Your task to perform on an android device: Open Youtube and go to "Your channel" Image 0: 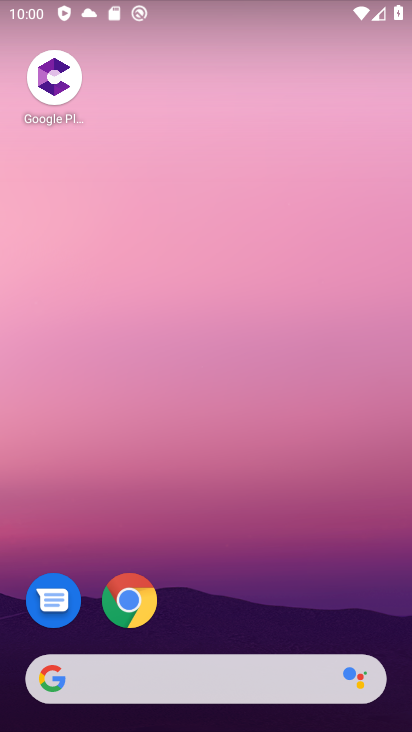
Step 0: drag from (203, 441) to (193, 0)
Your task to perform on an android device: Open Youtube and go to "Your channel" Image 1: 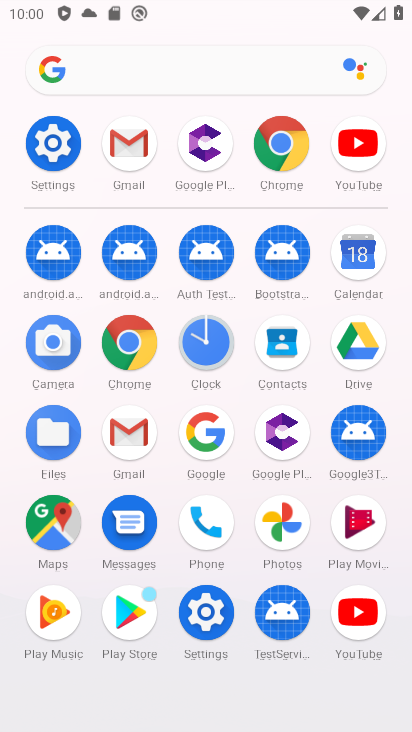
Step 1: click (345, 141)
Your task to perform on an android device: Open Youtube and go to "Your channel" Image 2: 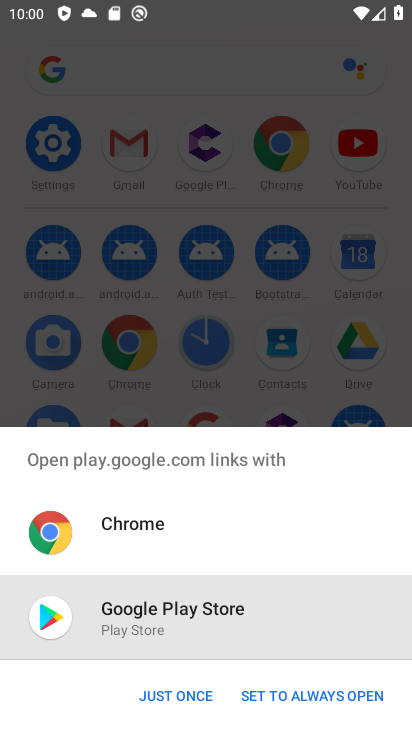
Step 2: click (168, 694)
Your task to perform on an android device: Open Youtube and go to "Your channel" Image 3: 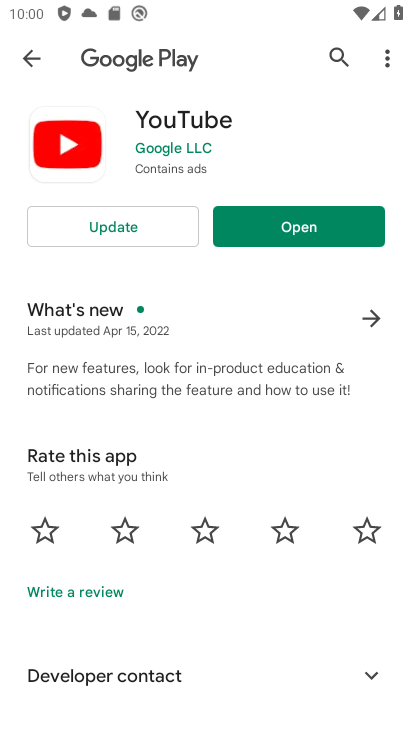
Step 3: click (295, 223)
Your task to perform on an android device: Open Youtube and go to "Your channel" Image 4: 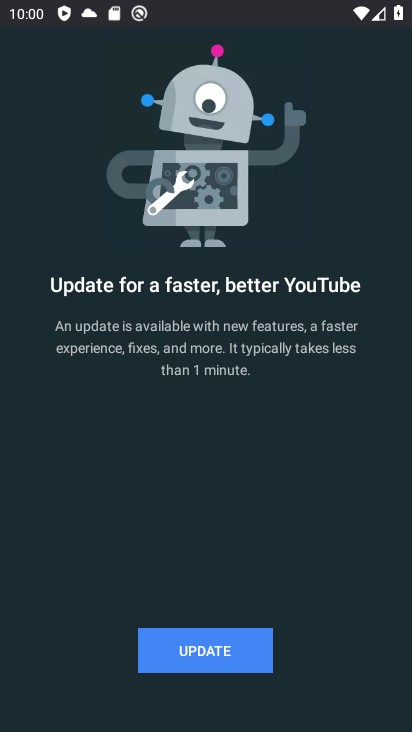
Step 4: click (278, 238)
Your task to perform on an android device: Open Youtube and go to "Your channel" Image 5: 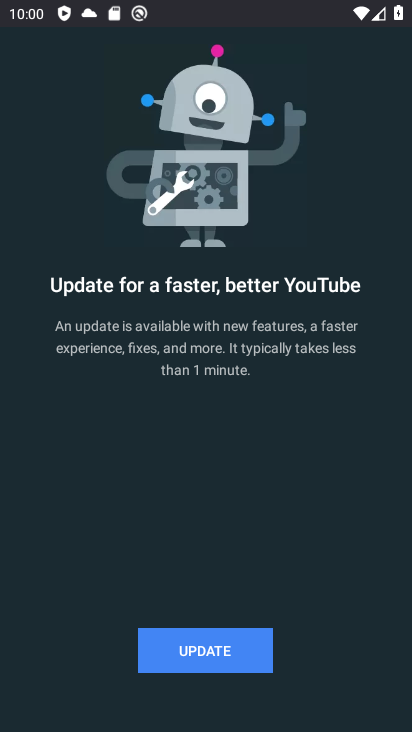
Step 5: click (189, 650)
Your task to perform on an android device: Open Youtube and go to "Your channel" Image 6: 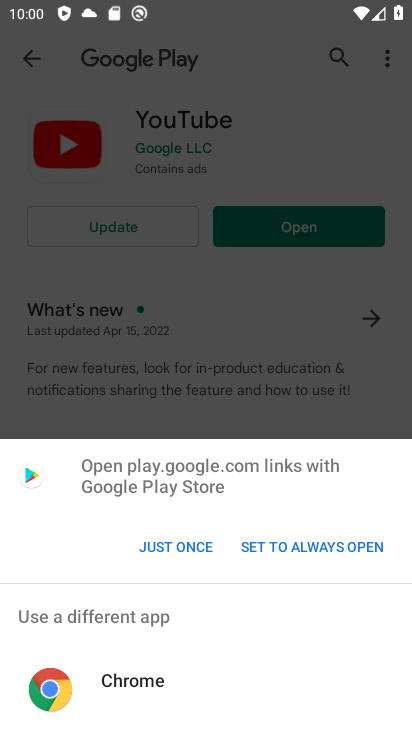
Step 6: click (177, 539)
Your task to perform on an android device: Open Youtube and go to "Your channel" Image 7: 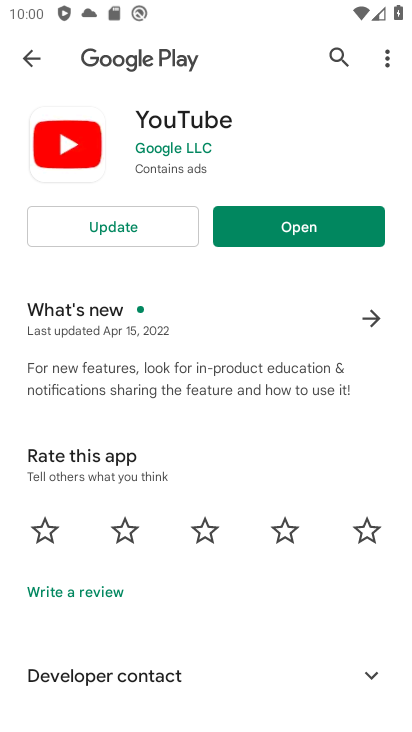
Step 7: click (123, 224)
Your task to perform on an android device: Open Youtube and go to "Your channel" Image 8: 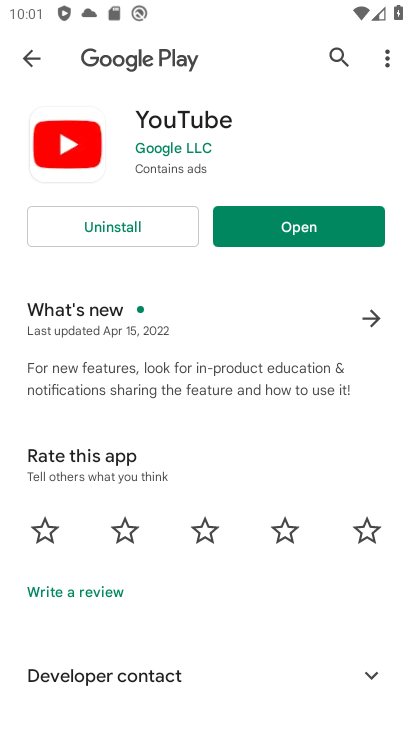
Step 8: click (277, 223)
Your task to perform on an android device: Open Youtube and go to "Your channel" Image 9: 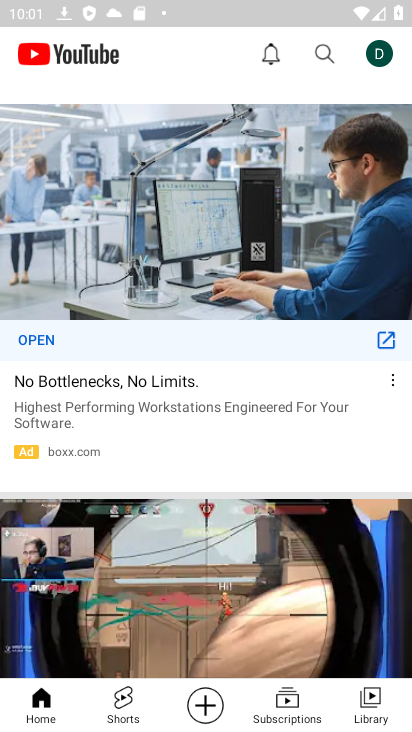
Step 9: click (379, 60)
Your task to perform on an android device: Open Youtube and go to "Your channel" Image 10: 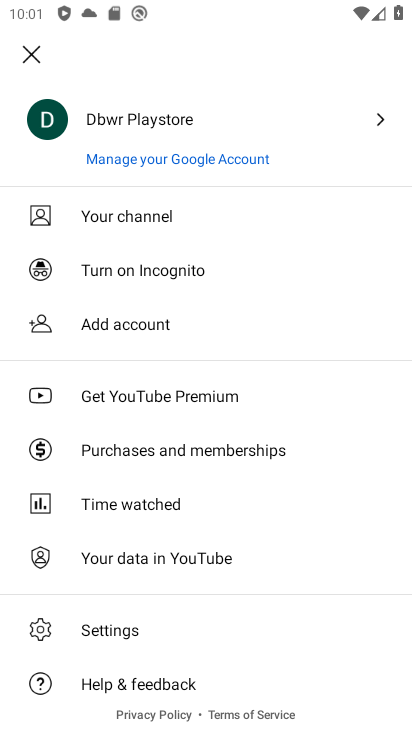
Step 10: click (130, 219)
Your task to perform on an android device: Open Youtube and go to "Your channel" Image 11: 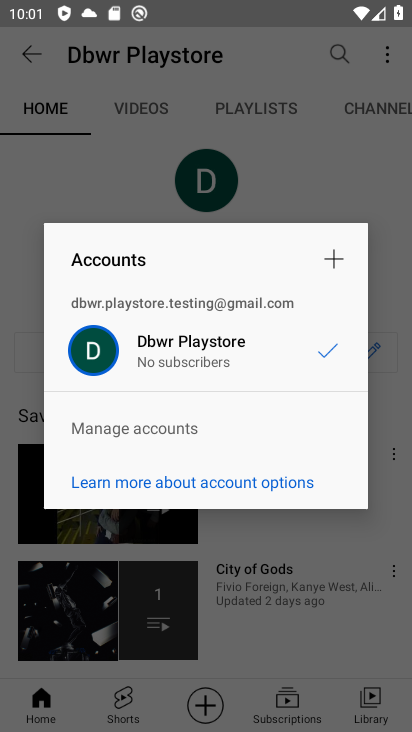
Step 11: task complete